Your task to perform on an android device: Check the news Image 0: 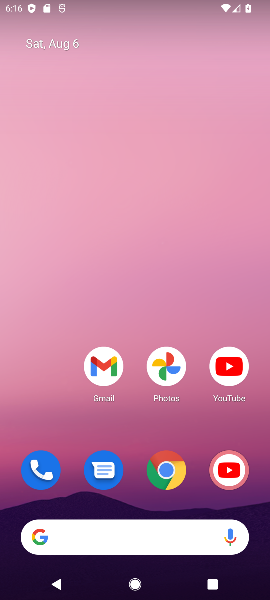
Step 0: drag from (132, 473) to (179, 66)
Your task to perform on an android device: Check the news Image 1: 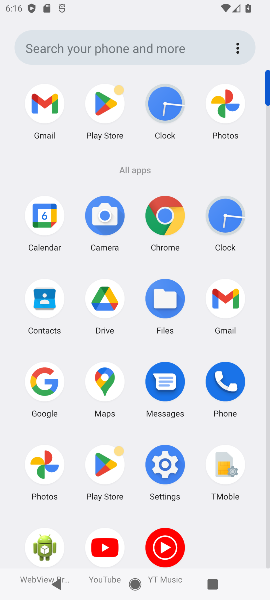
Step 1: click (158, 214)
Your task to perform on an android device: Check the news Image 2: 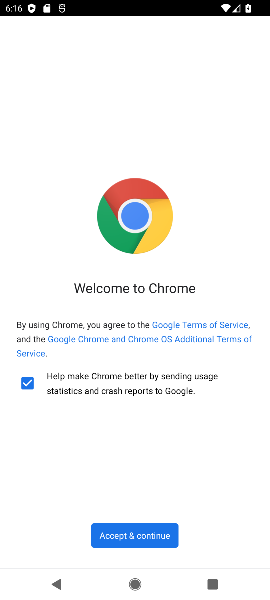
Step 2: click (162, 528)
Your task to perform on an android device: Check the news Image 3: 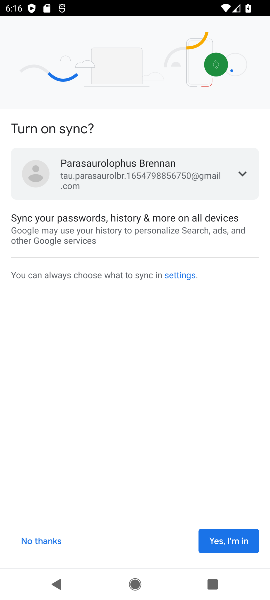
Step 3: click (208, 539)
Your task to perform on an android device: Check the news Image 4: 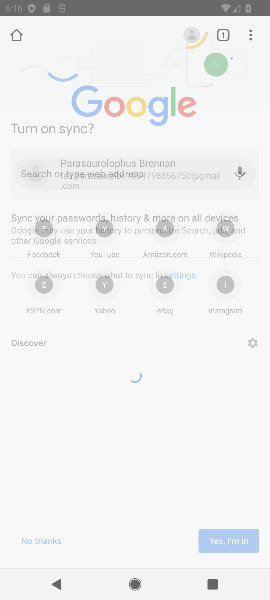
Step 4: click (242, 531)
Your task to perform on an android device: Check the news Image 5: 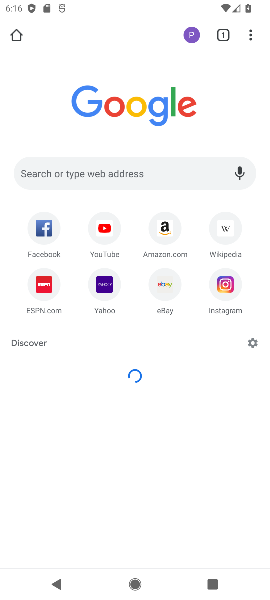
Step 5: click (94, 173)
Your task to perform on an android device: Check the news Image 6: 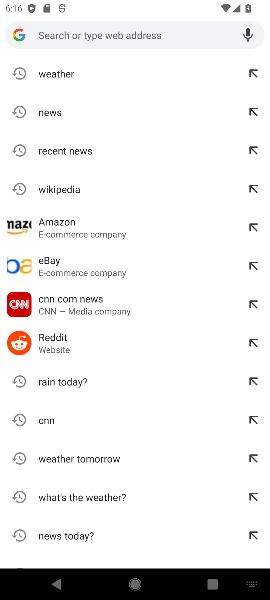
Step 6: type "Check the news"
Your task to perform on an android device: Check the news Image 7: 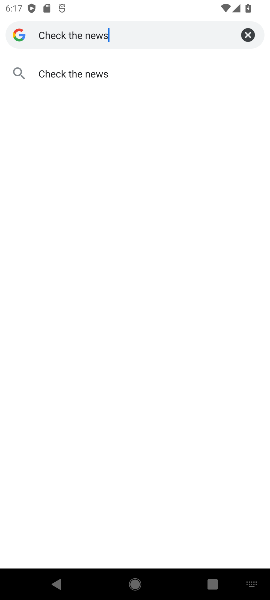
Step 7: click (79, 78)
Your task to perform on an android device: Check the news Image 8: 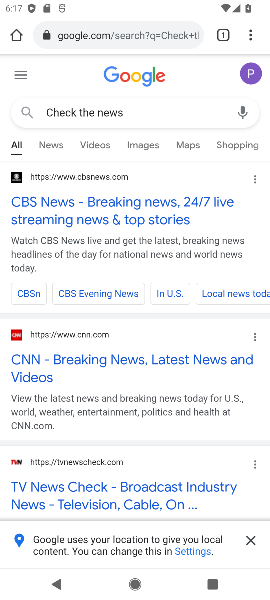
Step 8: click (51, 143)
Your task to perform on an android device: Check the news Image 9: 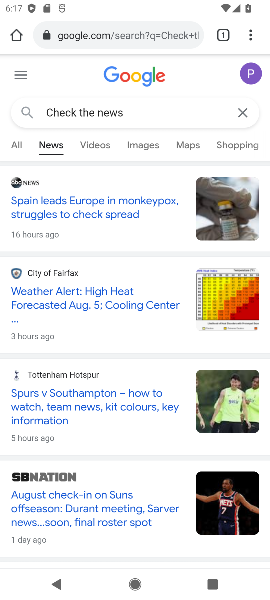
Step 9: task complete